Your task to perform on an android device: open app "Microsoft Excel" Image 0: 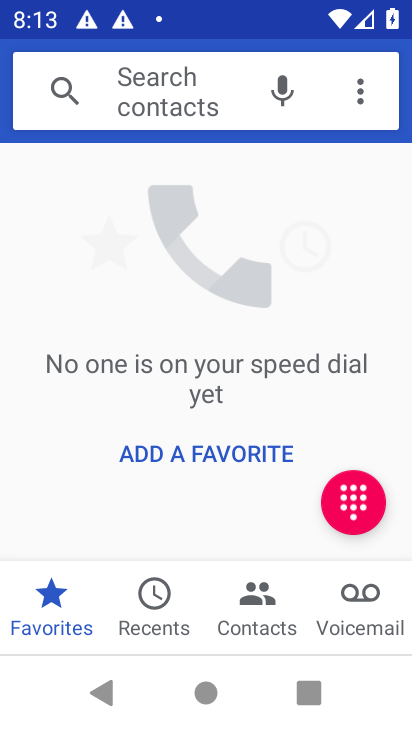
Step 0: press home button
Your task to perform on an android device: open app "Microsoft Excel" Image 1: 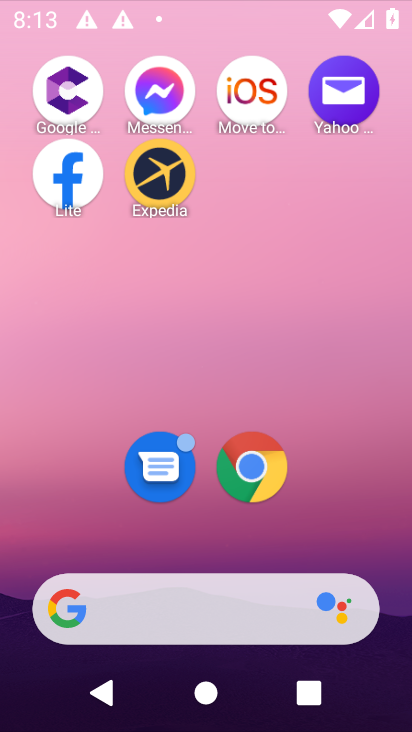
Step 1: drag from (184, 540) to (398, 271)
Your task to perform on an android device: open app "Microsoft Excel" Image 2: 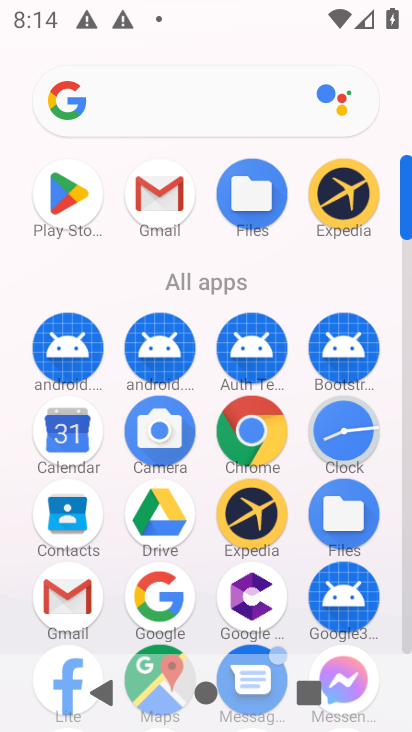
Step 2: drag from (199, 546) to (189, 207)
Your task to perform on an android device: open app "Microsoft Excel" Image 3: 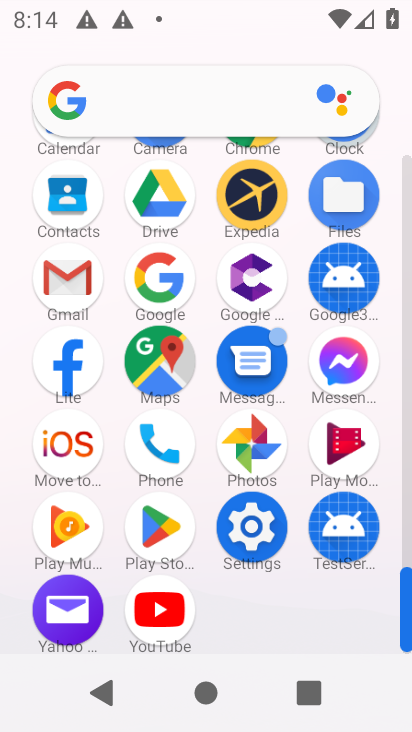
Step 3: click (157, 529)
Your task to perform on an android device: open app "Microsoft Excel" Image 4: 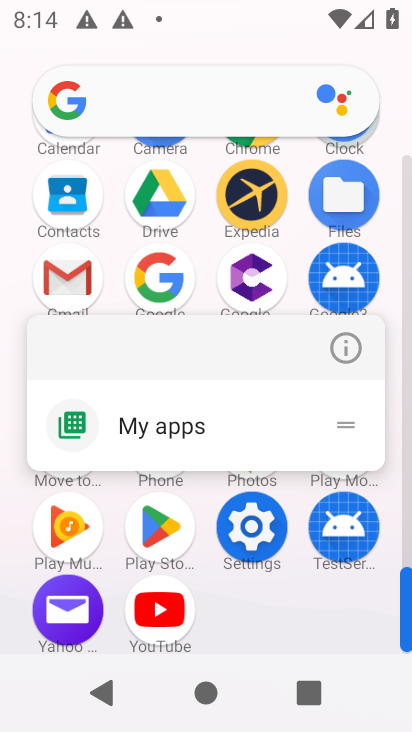
Step 4: click (347, 353)
Your task to perform on an android device: open app "Microsoft Excel" Image 5: 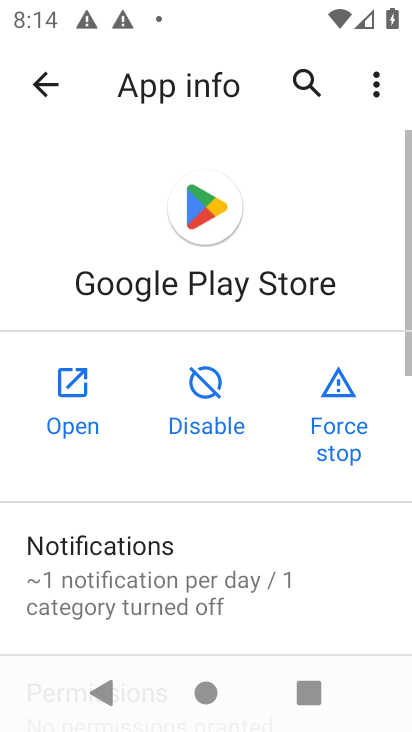
Step 5: click (57, 359)
Your task to perform on an android device: open app "Microsoft Excel" Image 6: 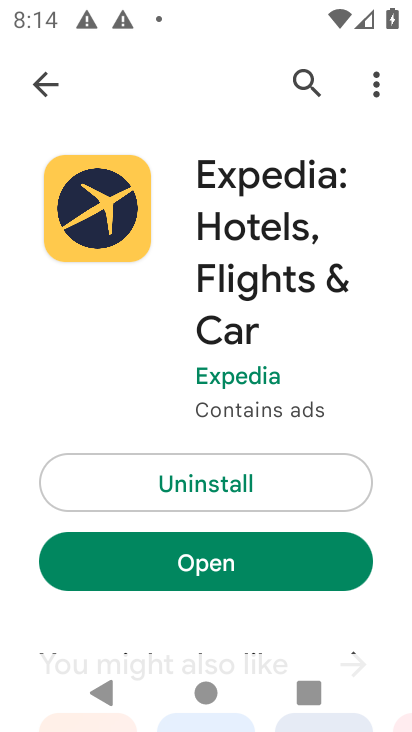
Step 6: click (285, 95)
Your task to perform on an android device: open app "Microsoft Excel" Image 7: 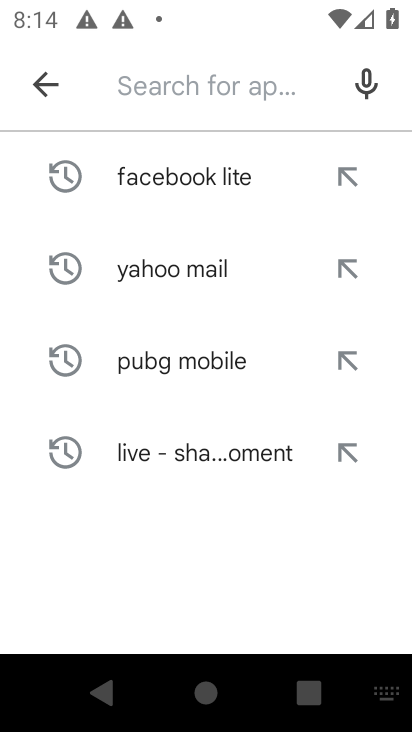
Step 7: type "Microsoft Excel"
Your task to perform on an android device: open app "Microsoft Excel" Image 8: 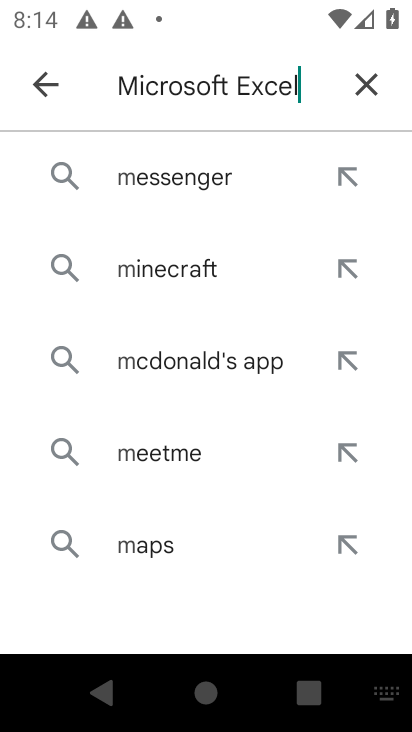
Step 8: type ""
Your task to perform on an android device: open app "Microsoft Excel" Image 9: 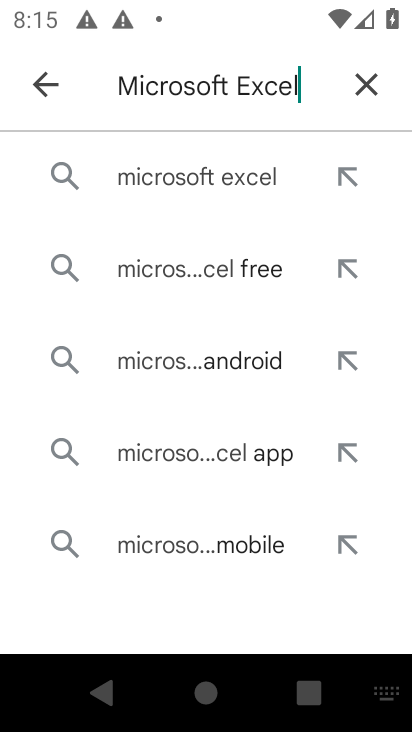
Step 9: click (167, 170)
Your task to perform on an android device: open app "Microsoft Excel" Image 10: 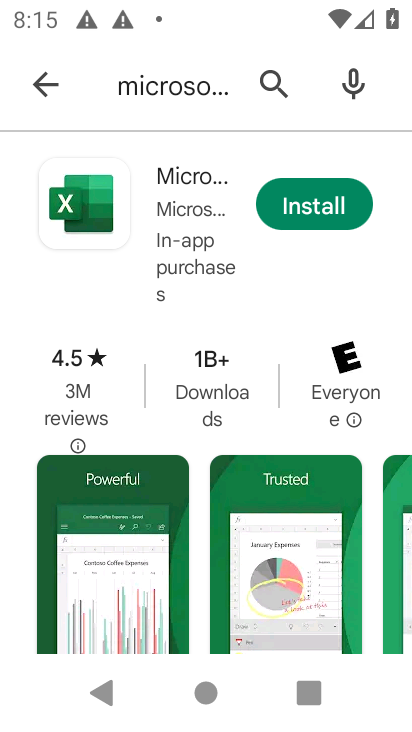
Step 10: click (163, 180)
Your task to perform on an android device: open app "Microsoft Excel" Image 11: 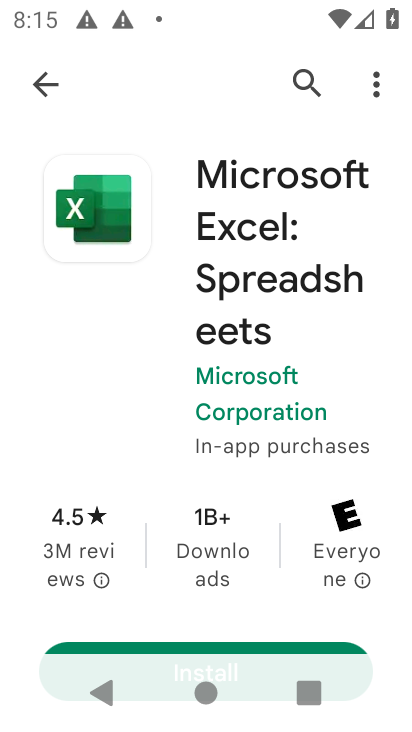
Step 11: task complete